Your task to perform on an android device: open app "File Manager" Image 0: 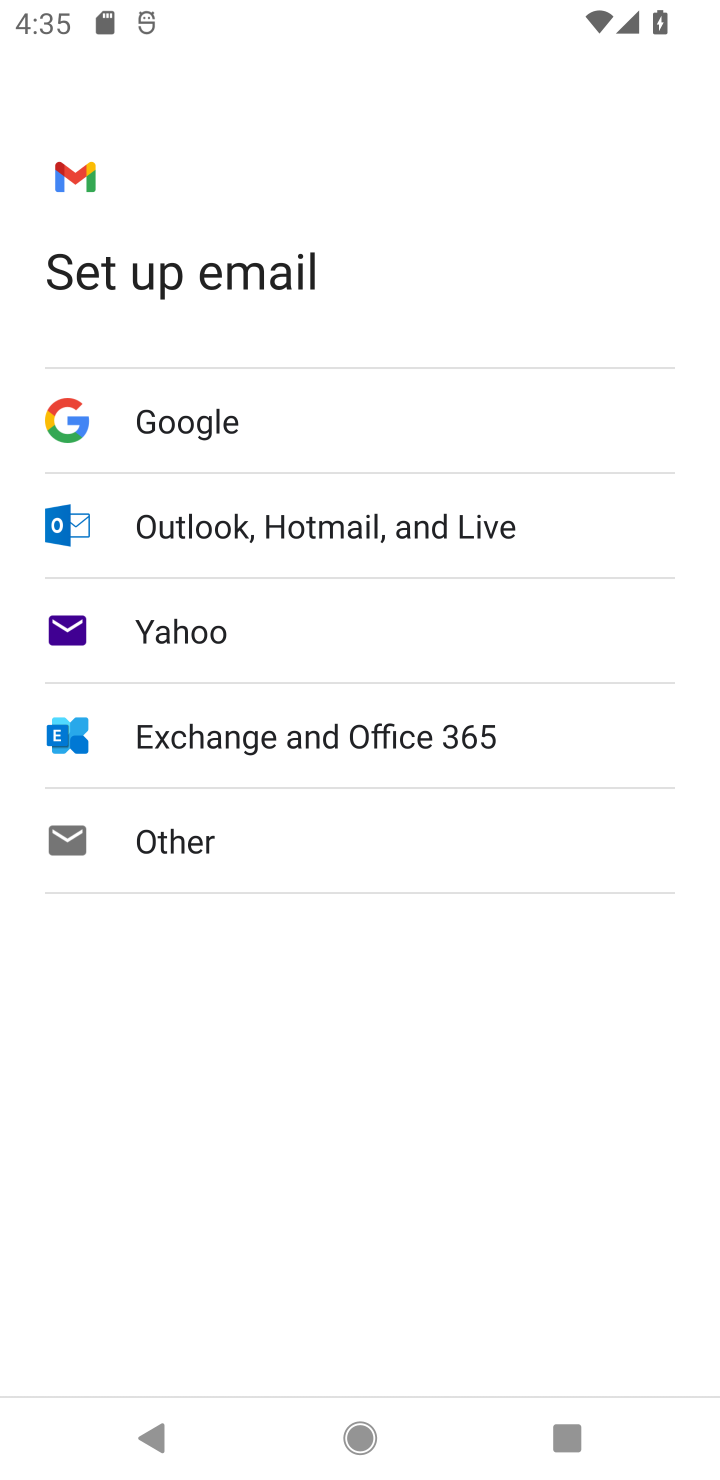
Step 0: press home button
Your task to perform on an android device: open app "File Manager" Image 1: 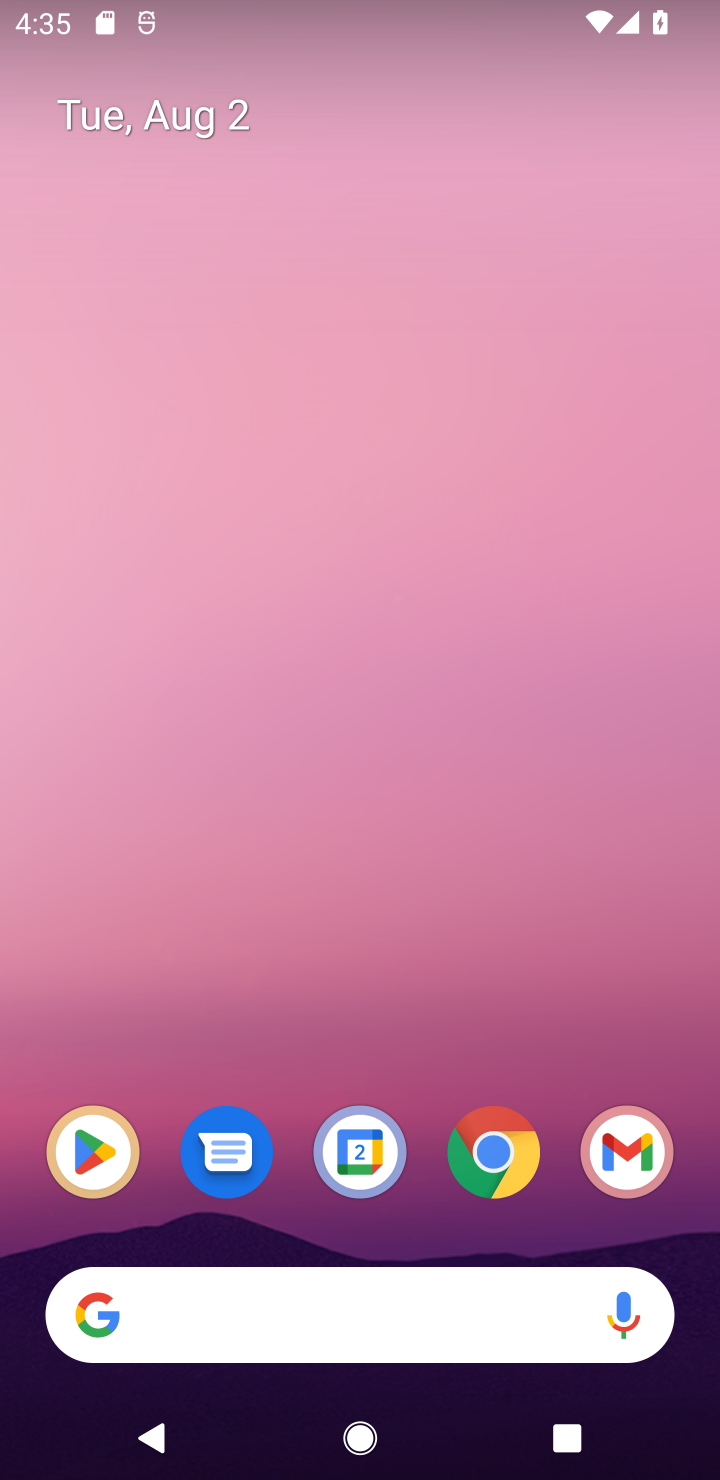
Step 1: drag from (336, 1246) to (249, 3)
Your task to perform on an android device: open app "File Manager" Image 2: 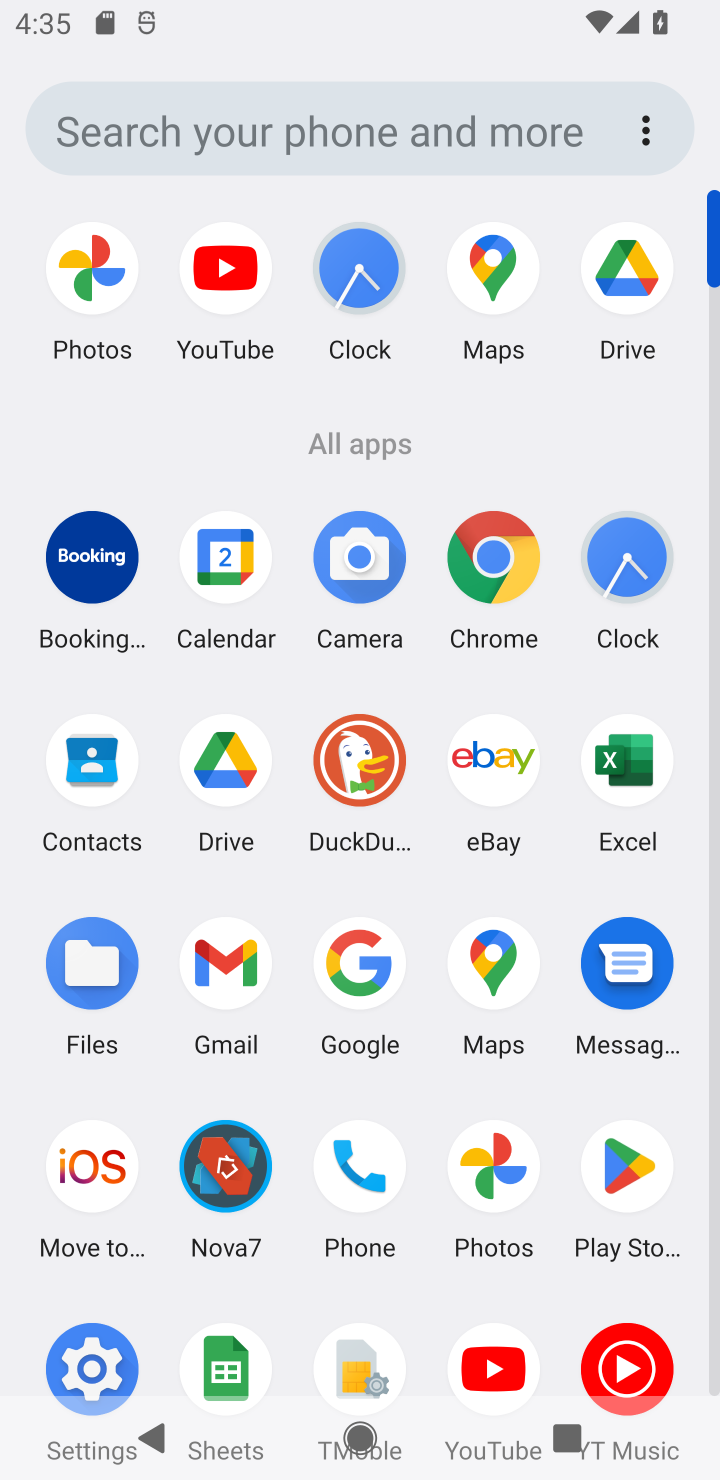
Step 2: click (622, 1168)
Your task to perform on an android device: open app "File Manager" Image 3: 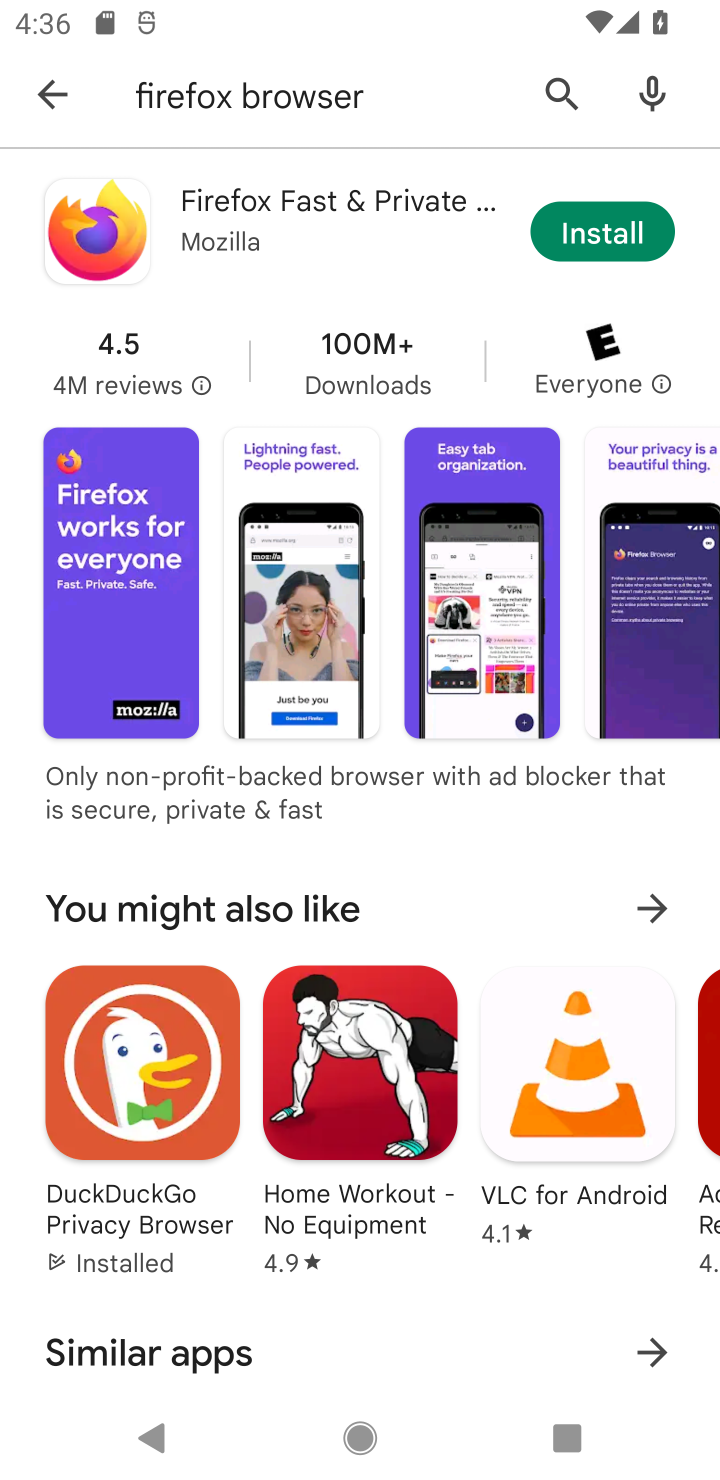
Step 3: click (109, 75)
Your task to perform on an android device: open app "File Manager" Image 4: 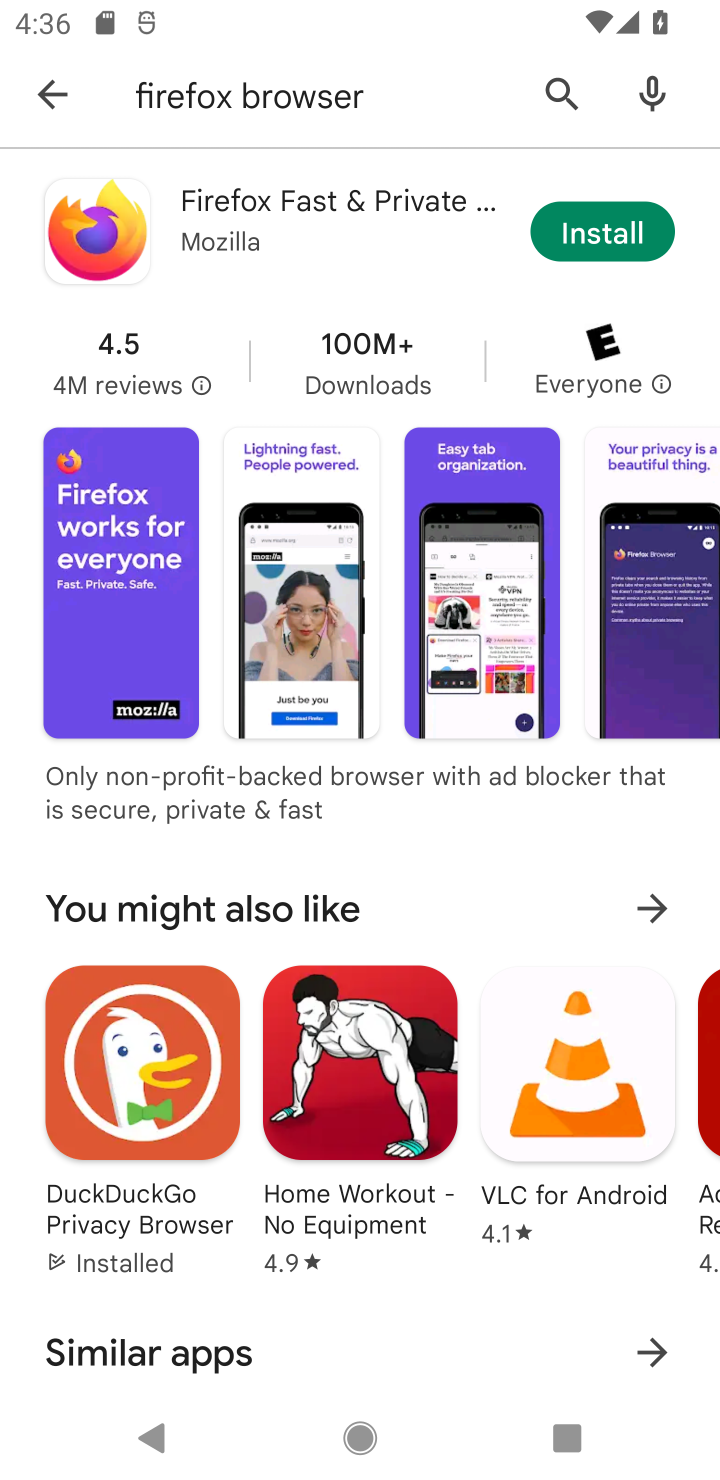
Step 4: click (65, 97)
Your task to perform on an android device: open app "File Manager" Image 5: 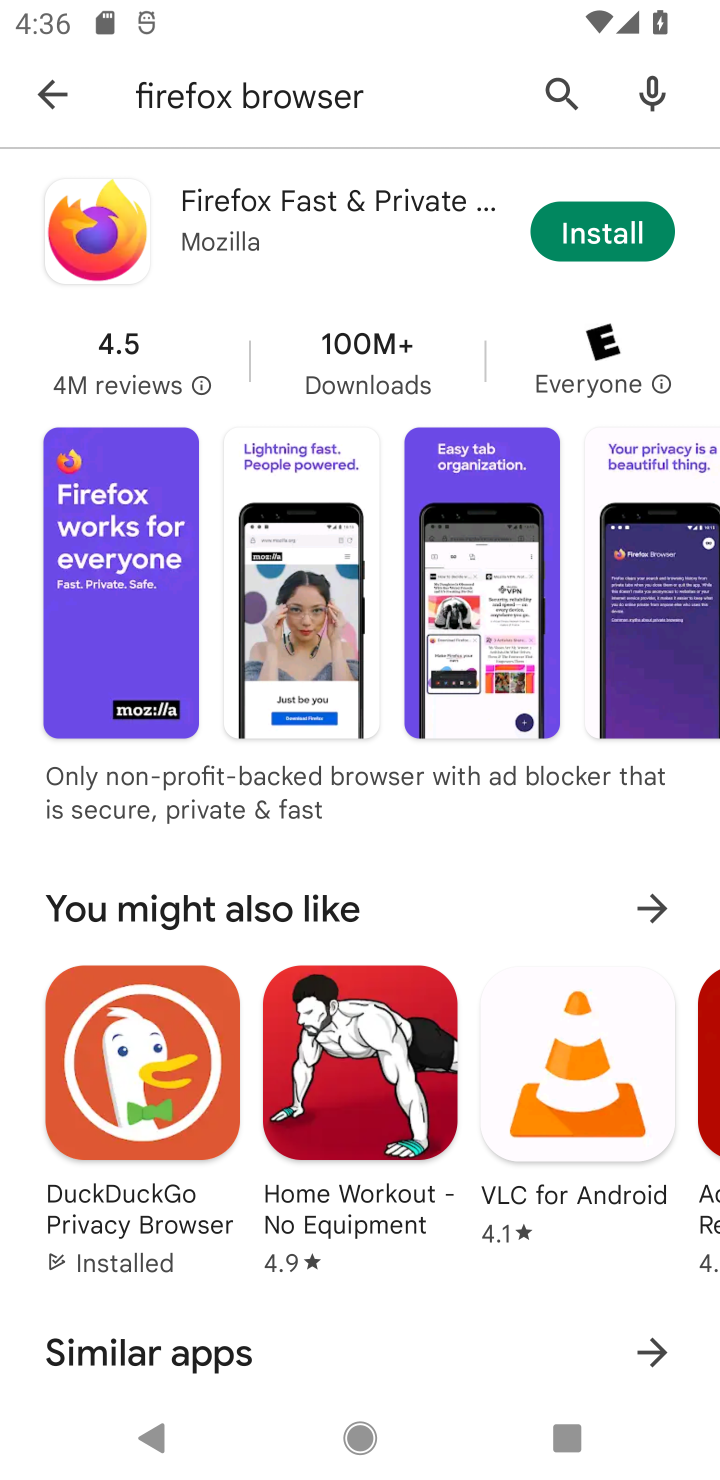
Step 5: click (63, 96)
Your task to perform on an android device: open app "File Manager" Image 6: 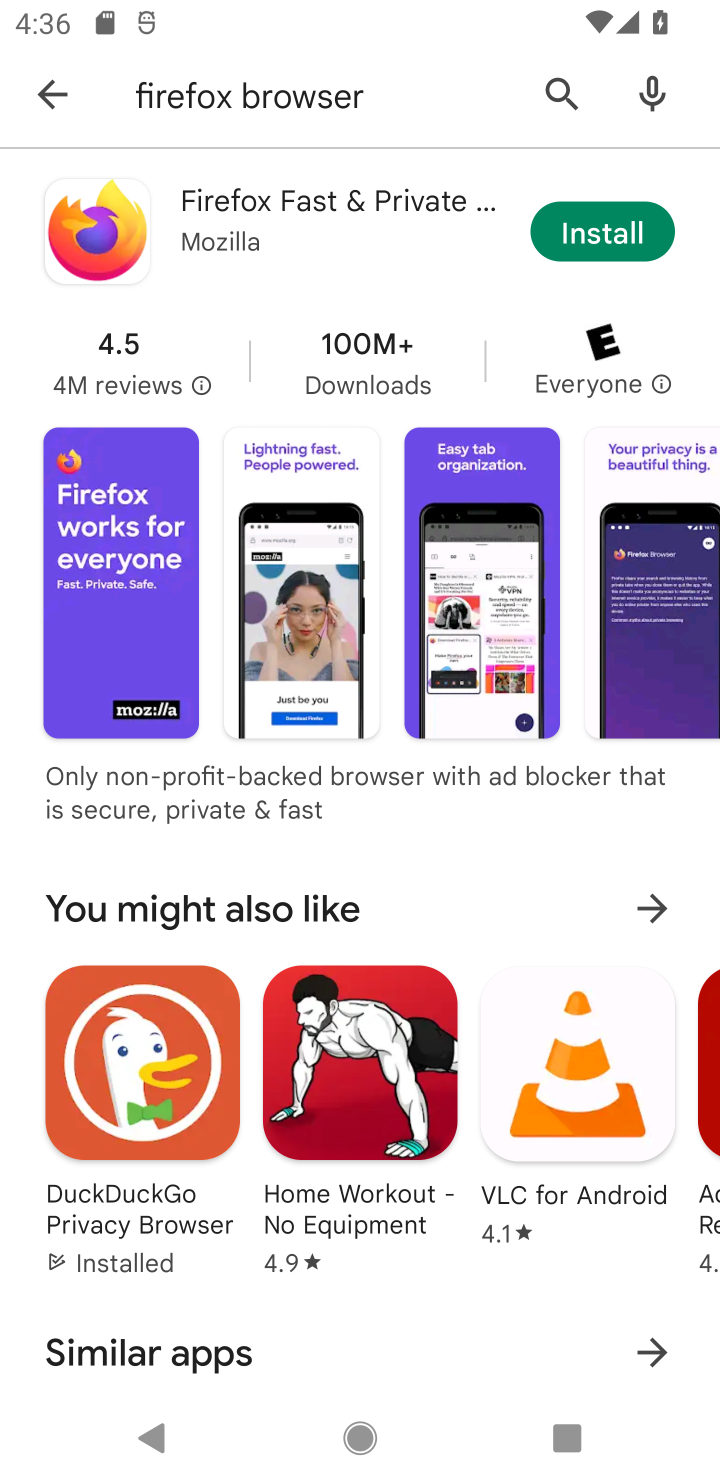
Step 6: click (47, 97)
Your task to perform on an android device: open app "File Manager" Image 7: 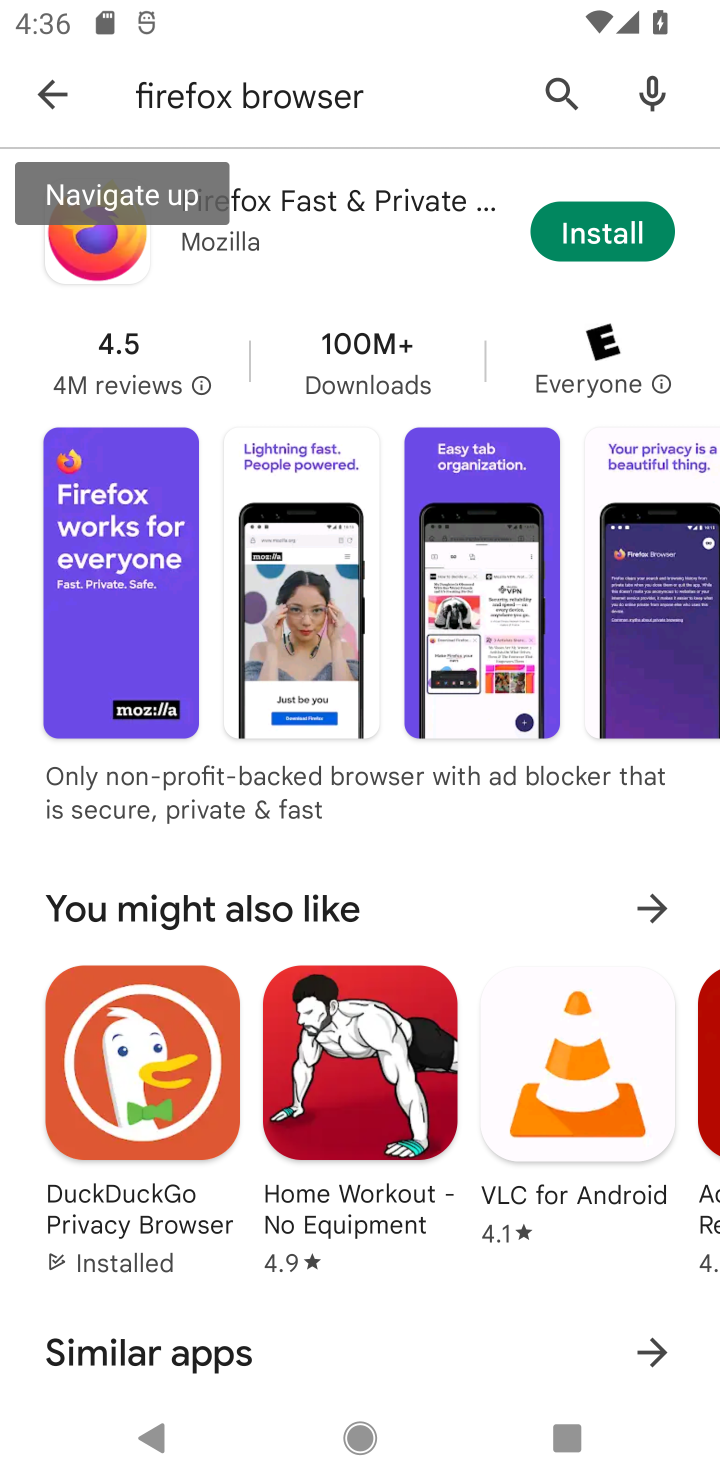
Step 7: click (47, 94)
Your task to perform on an android device: open app "File Manager" Image 8: 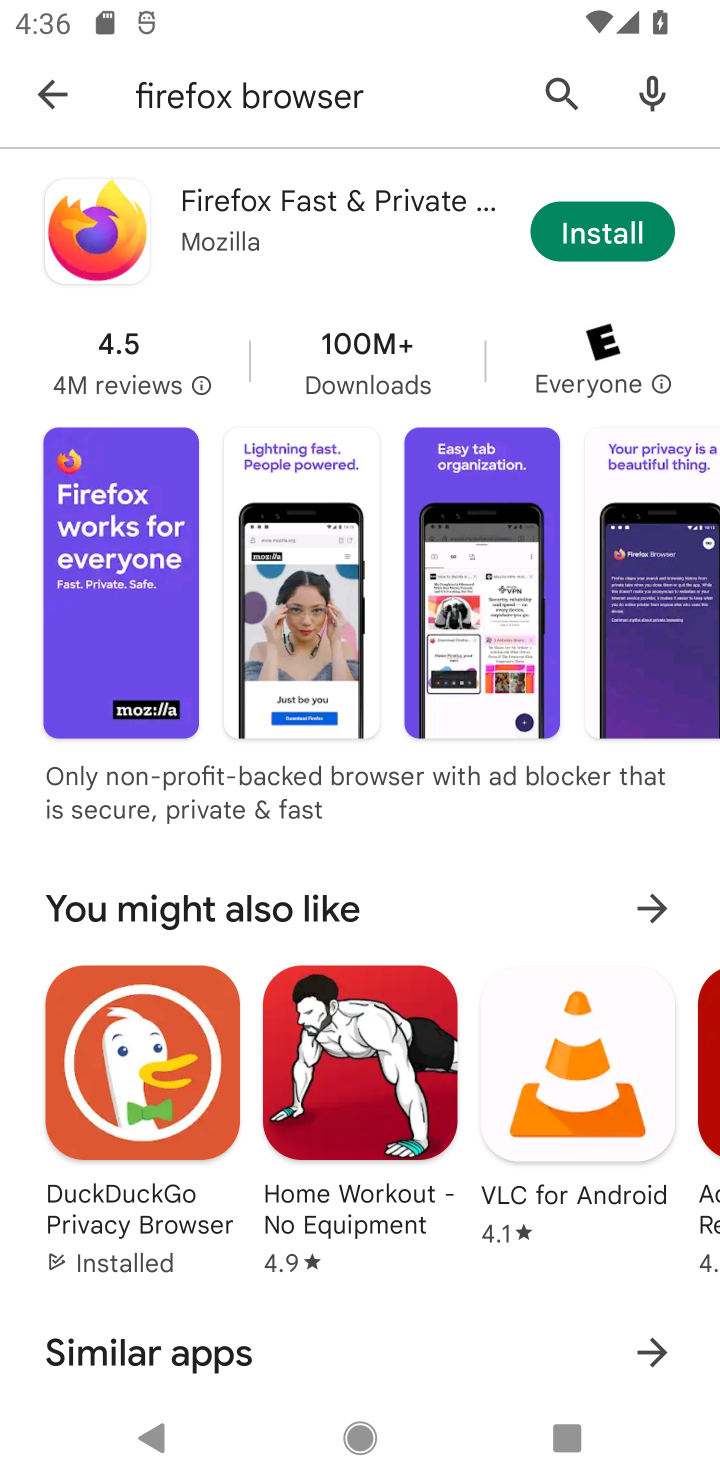
Step 8: task complete